Your task to perform on an android device: Open calendar and show me the first week of next month Image 0: 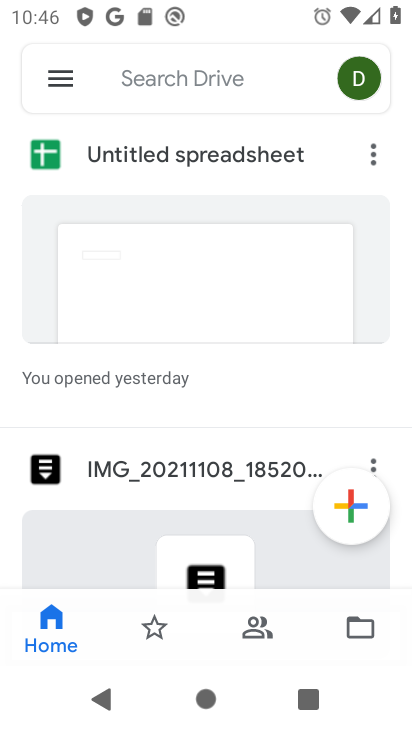
Step 0: press home button
Your task to perform on an android device: Open calendar and show me the first week of next month Image 1: 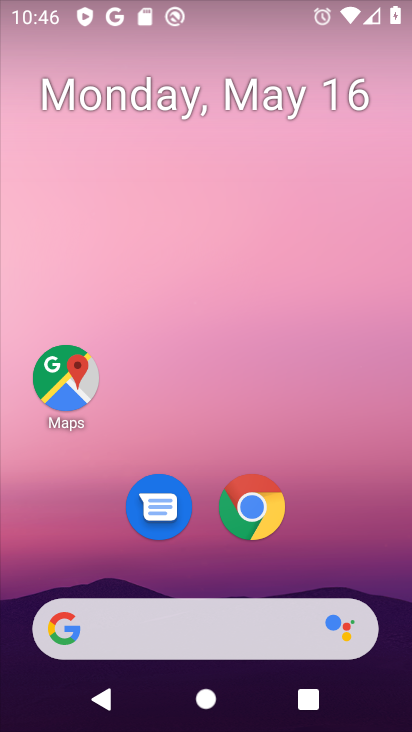
Step 1: click (261, 84)
Your task to perform on an android device: Open calendar and show me the first week of next month Image 2: 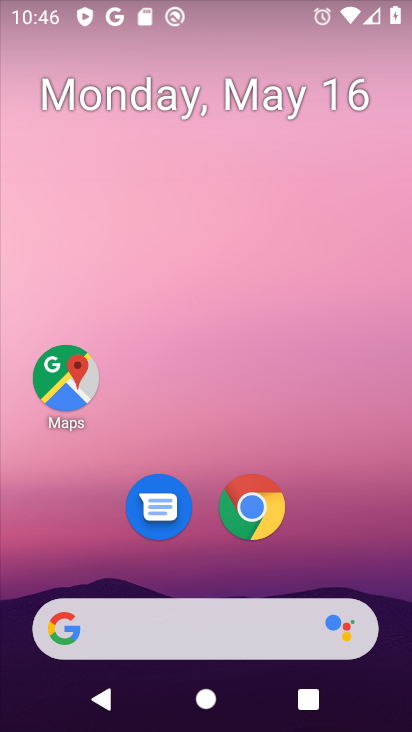
Step 2: click (261, 84)
Your task to perform on an android device: Open calendar and show me the first week of next month Image 3: 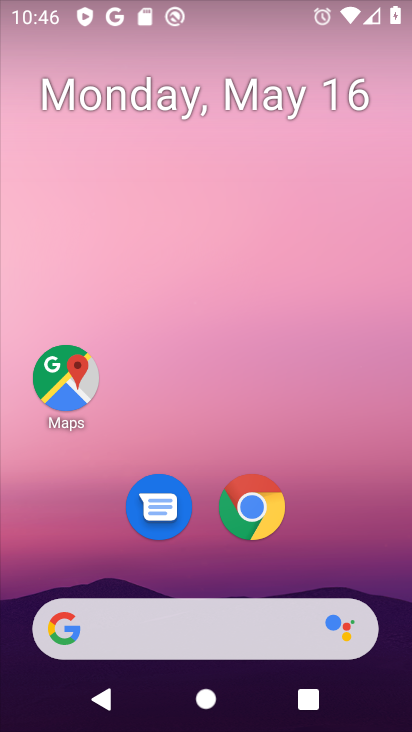
Step 3: click (323, 97)
Your task to perform on an android device: Open calendar and show me the first week of next month Image 4: 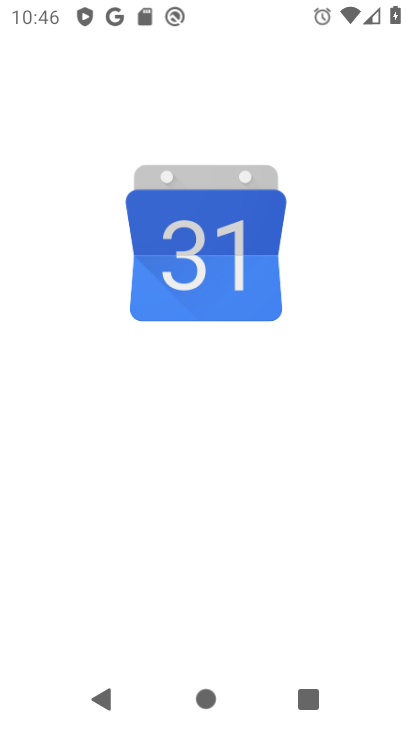
Step 4: click (151, 104)
Your task to perform on an android device: Open calendar and show me the first week of next month Image 5: 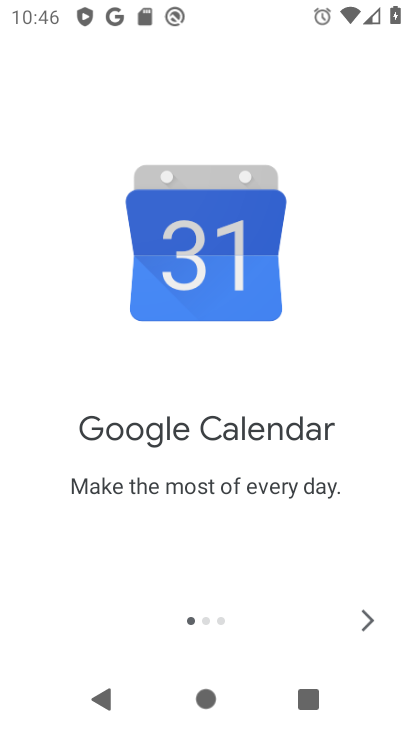
Step 5: click (364, 609)
Your task to perform on an android device: Open calendar and show me the first week of next month Image 6: 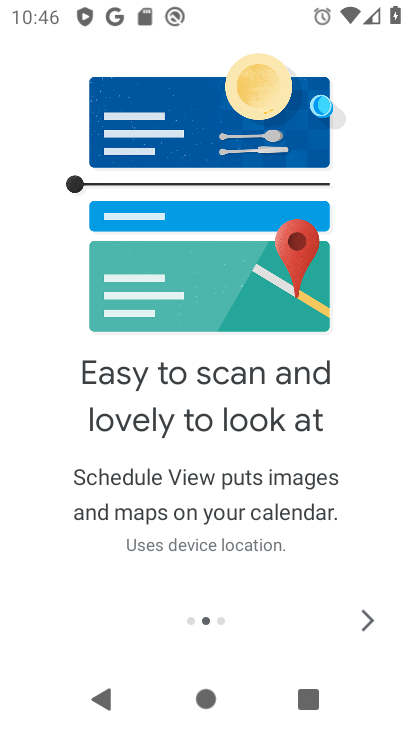
Step 6: click (364, 609)
Your task to perform on an android device: Open calendar and show me the first week of next month Image 7: 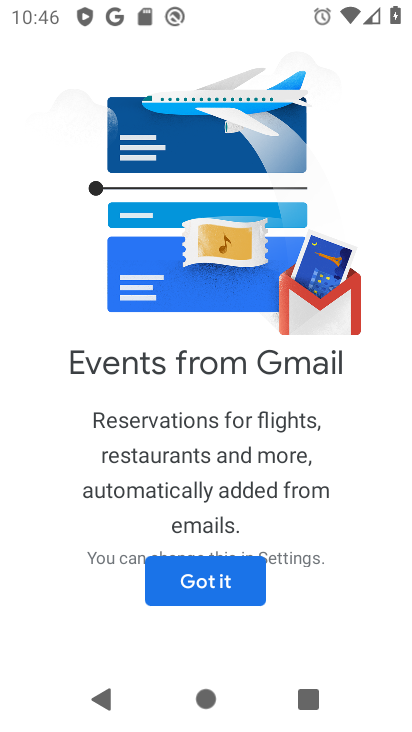
Step 7: click (194, 574)
Your task to perform on an android device: Open calendar and show me the first week of next month Image 8: 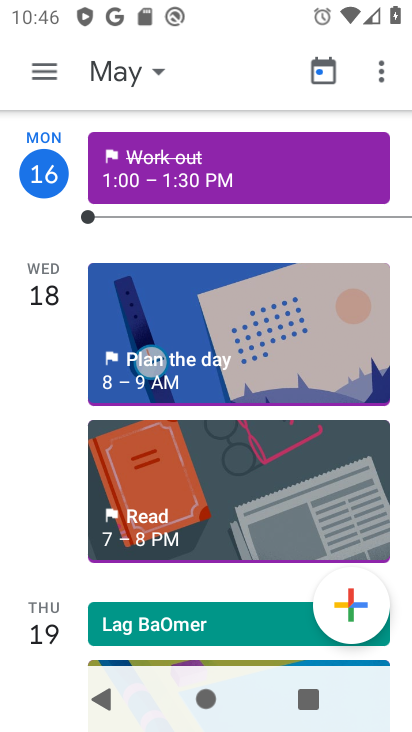
Step 8: click (49, 63)
Your task to perform on an android device: Open calendar and show me the first week of next month Image 9: 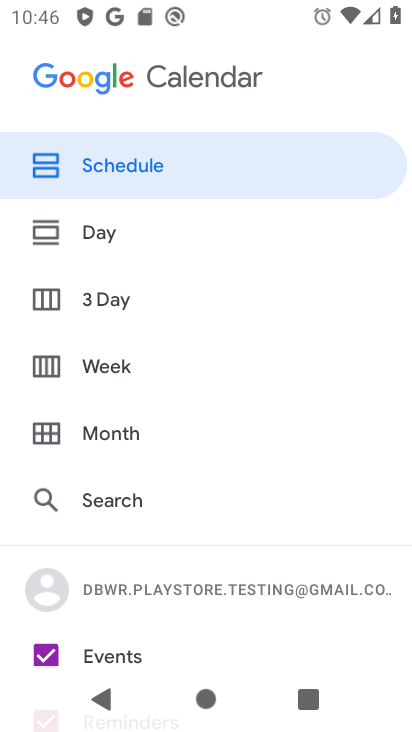
Step 9: click (125, 374)
Your task to perform on an android device: Open calendar and show me the first week of next month Image 10: 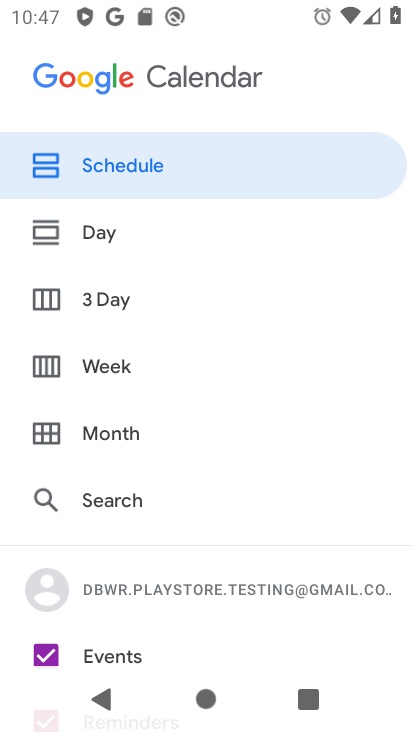
Step 10: click (125, 374)
Your task to perform on an android device: Open calendar and show me the first week of next month Image 11: 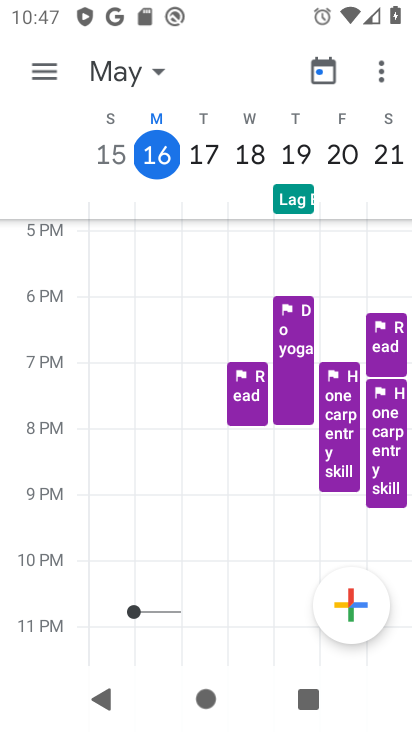
Step 11: click (158, 72)
Your task to perform on an android device: Open calendar and show me the first week of next month Image 12: 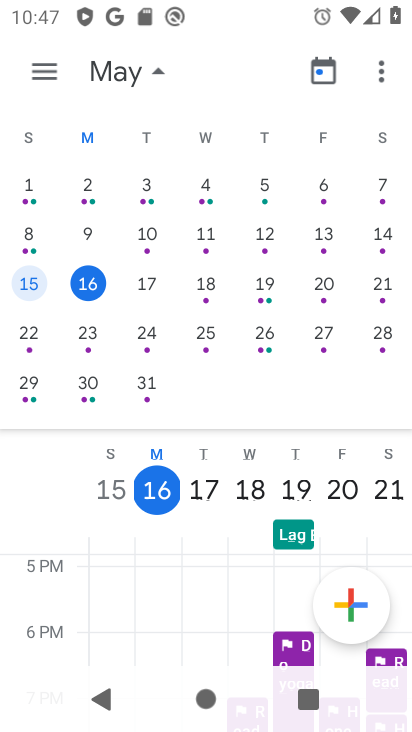
Step 12: drag from (303, 372) to (1, 299)
Your task to perform on an android device: Open calendar and show me the first week of next month Image 13: 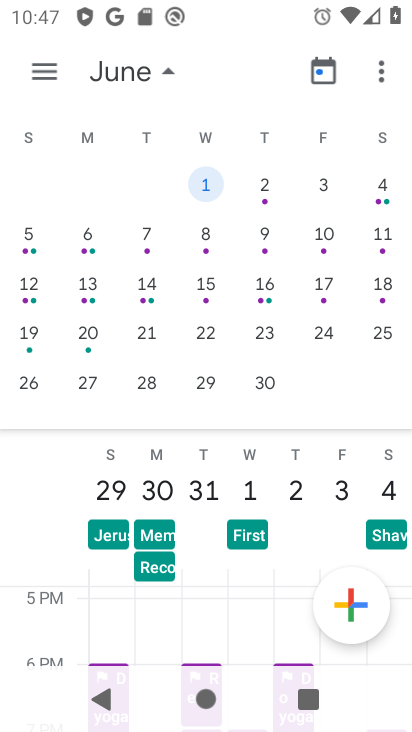
Step 13: click (263, 184)
Your task to perform on an android device: Open calendar and show me the first week of next month Image 14: 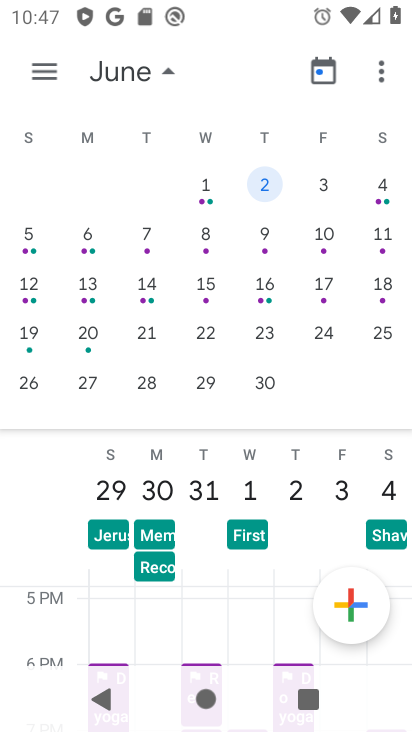
Step 14: task complete